Your task to perform on an android device: delete a single message in the gmail app Image 0: 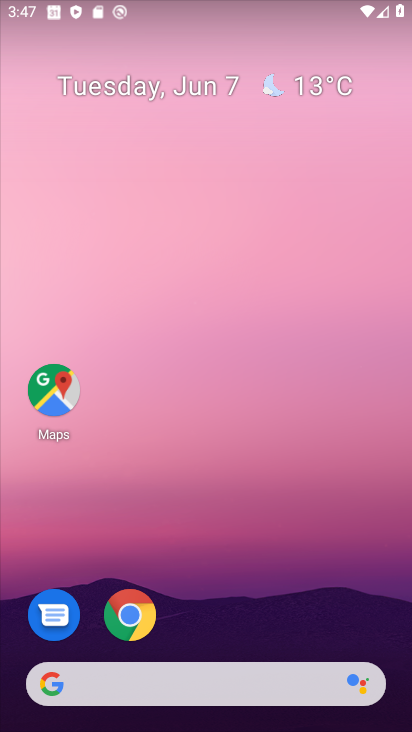
Step 0: drag from (220, 591) to (149, 95)
Your task to perform on an android device: delete a single message in the gmail app Image 1: 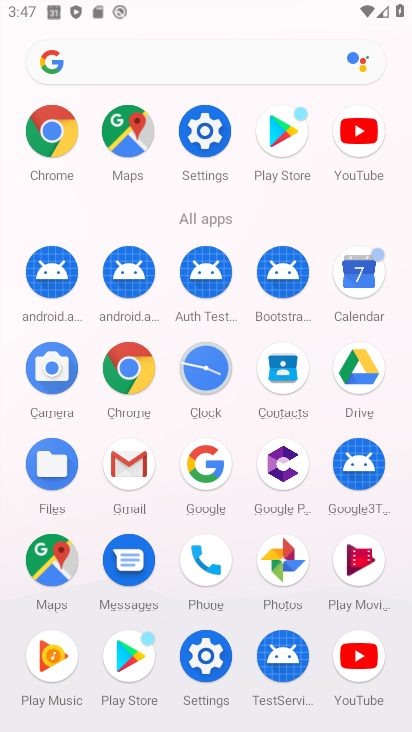
Step 1: drag from (229, 453) to (161, 41)
Your task to perform on an android device: delete a single message in the gmail app Image 2: 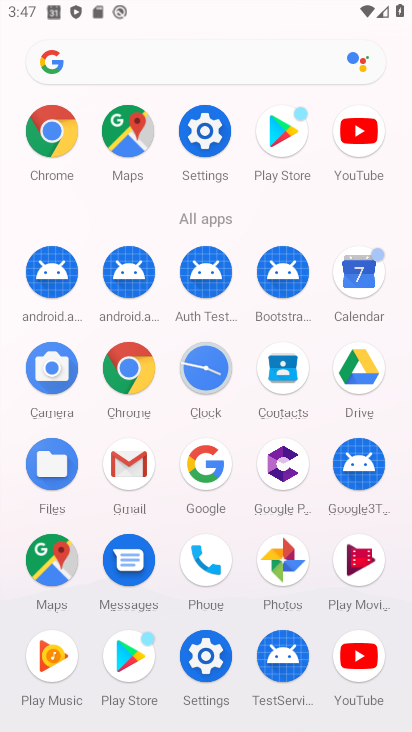
Step 2: click (119, 461)
Your task to perform on an android device: delete a single message in the gmail app Image 3: 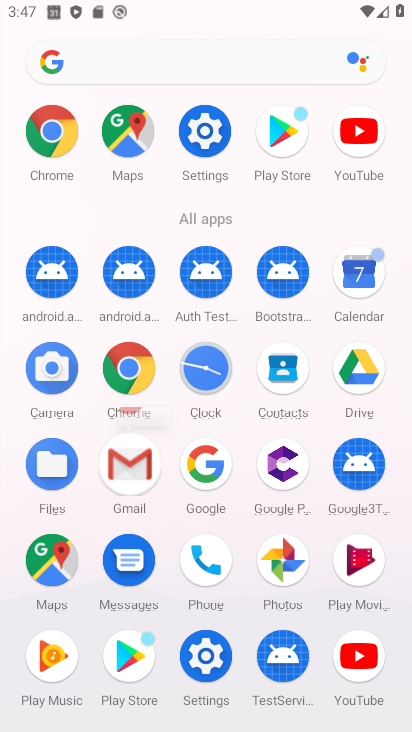
Step 3: click (120, 460)
Your task to perform on an android device: delete a single message in the gmail app Image 4: 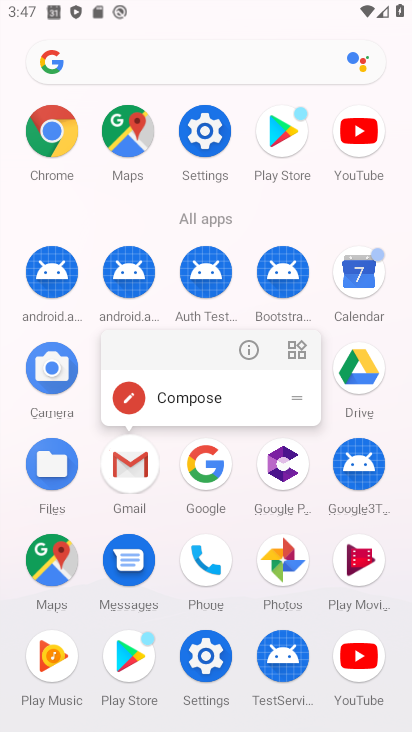
Step 4: click (120, 458)
Your task to perform on an android device: delete a single message in the gmail app Image 5: 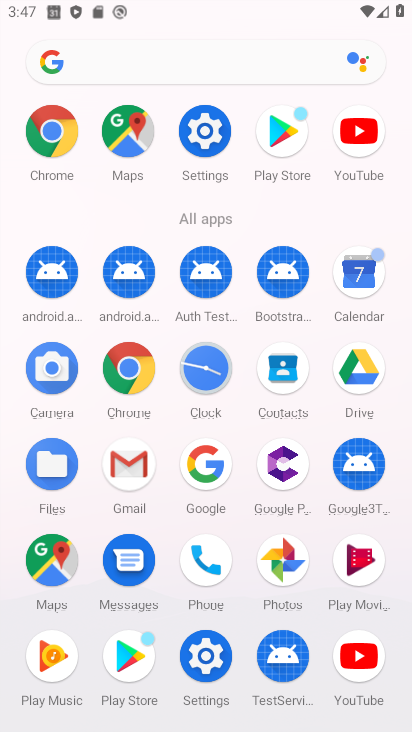
Step 5: click (125, 461)
Your task to perform on an android device: delete a single message in the gmail app Image 6: 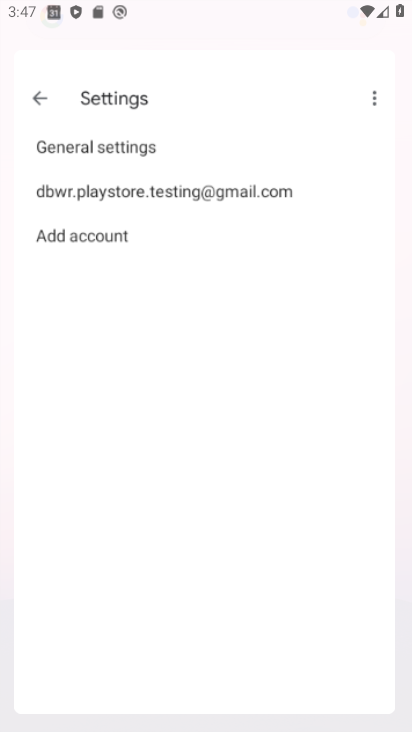
Step 6: click (126, 459)
Your task to perform on an android device: delete a single message in the gmail app Image 7: 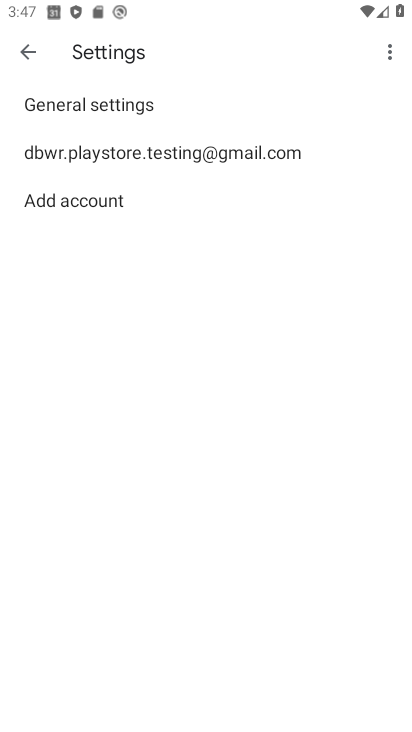
Step 7: click (19, 51)
Your task to perform on an android device: delete a single message in the gmail app Image 8: 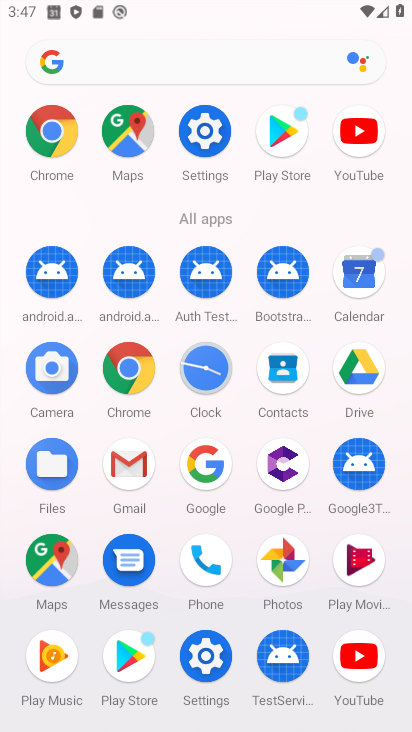
Step 8: click (126, 460)
Your task to perform on an android device: delete a single message in the gmail app Image 9: 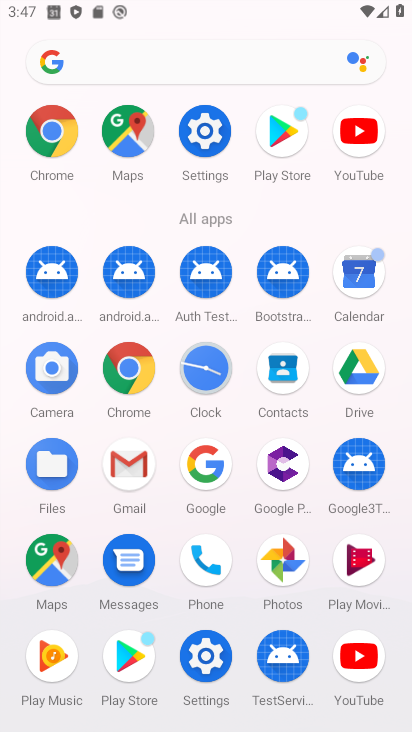
Step 9: click (126, 460)
Your task to perform on an android device: delete a single message in the gmail app Image 10: 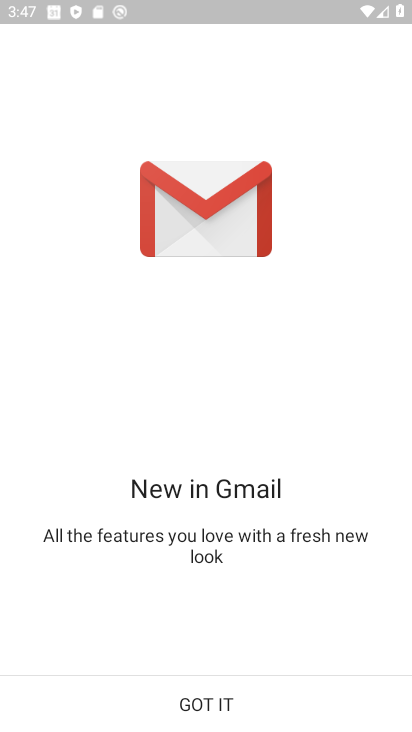
Step 10: click (202, 701)
Your task to perform on an android device: delete a single message in the gmail app Image 11: 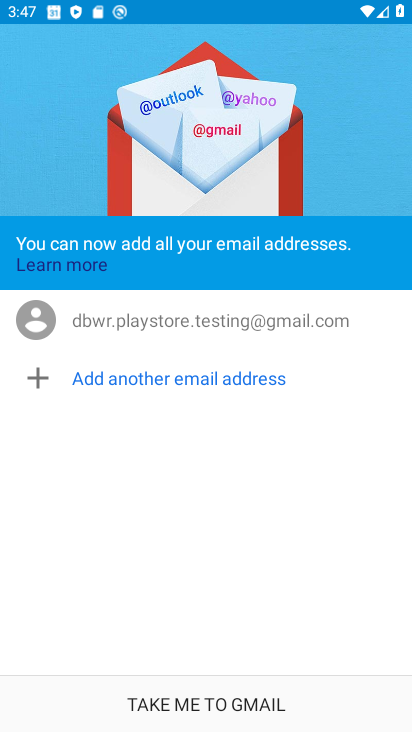
Step 11: click (216, 704)
Your task to perform on an android device: delete a single message in the gmail app Image 12: 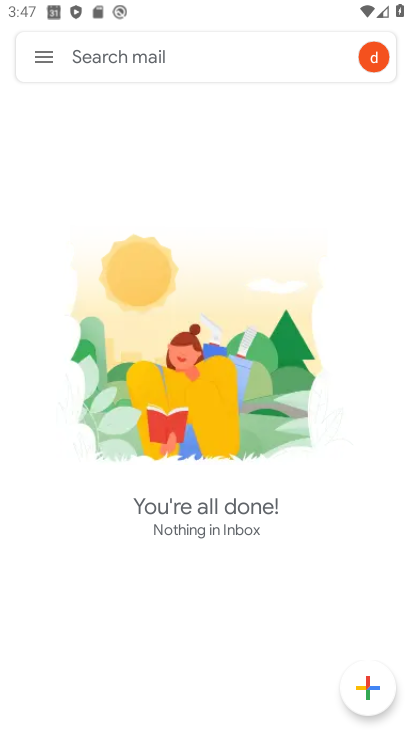
Step 12: click (41, 51)
Your task to perform on an android device: delete a single message in the gmail app Image 13: 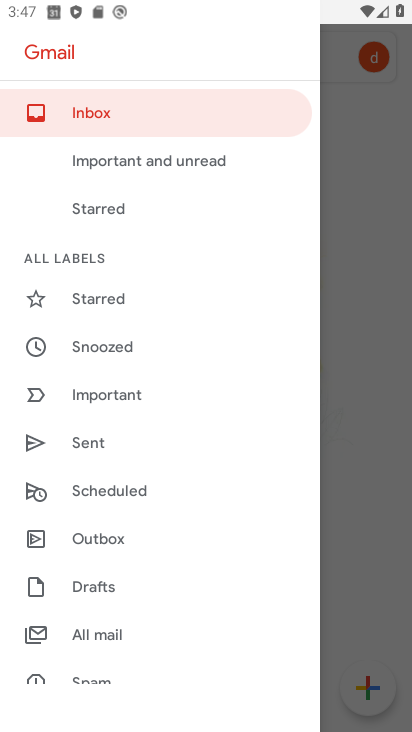
Step 13: click (94, 629)
Your task to perform on an android device: delete a single message in the gmail app Image 14: 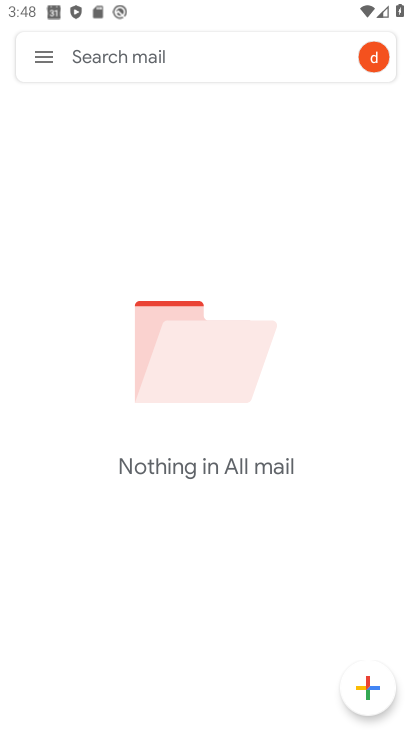
Step 14: task complete